Your task to perform on an android device: Go to wifi settings Image 0: 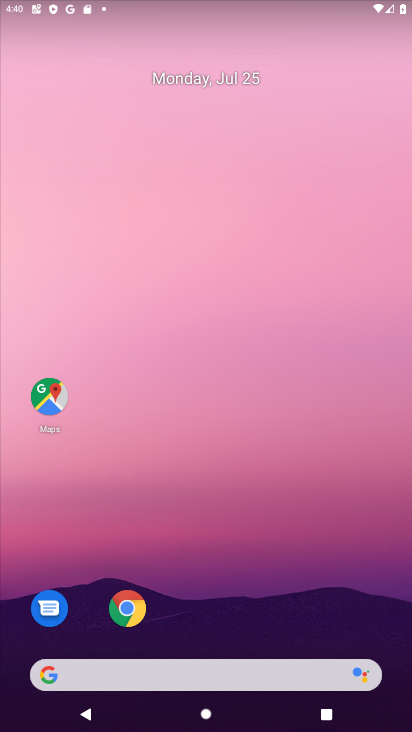
Step 0: drag from (225, 635) to (250, 4)
Your task to perform on an android device: Go to wifi settings Image 1: 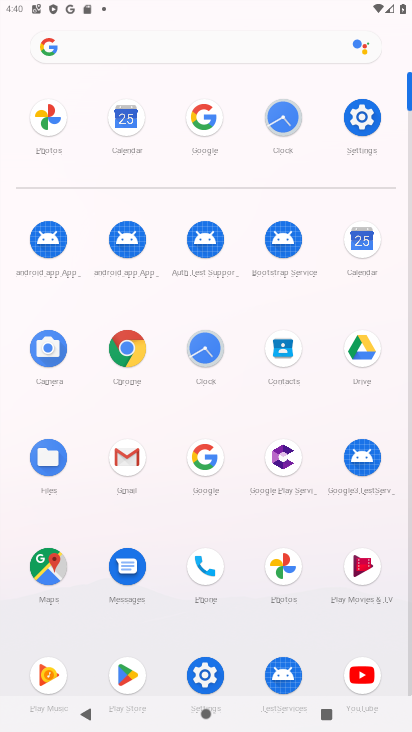
Step 1: click (361, 111)
Your task to perform on an android device: Go to wifi settings Image 2: 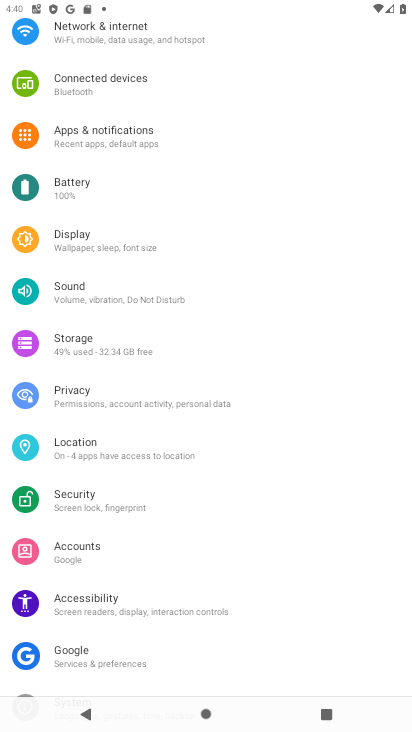
Step 2: click (158, 34)
Your task to perform on an android device: Go to wifi settings Image 3: 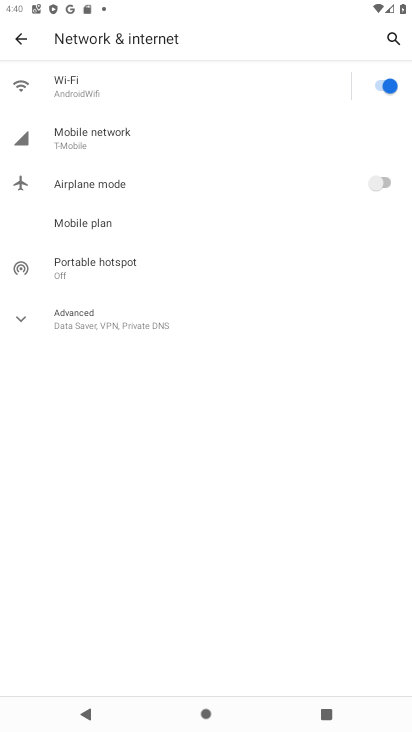
Step 3: click (122, 77)
Your task to perform on an android device: Go to wifi settings Image 4: 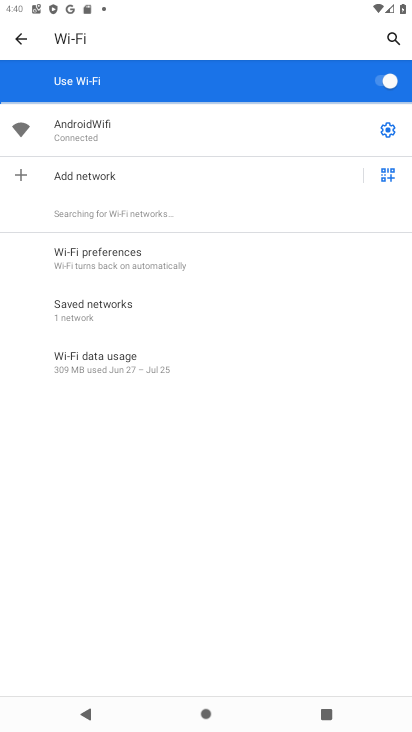
Step 4: task complete